Your task to perform on an android device: Clear all items from cart on costco. Image 0: 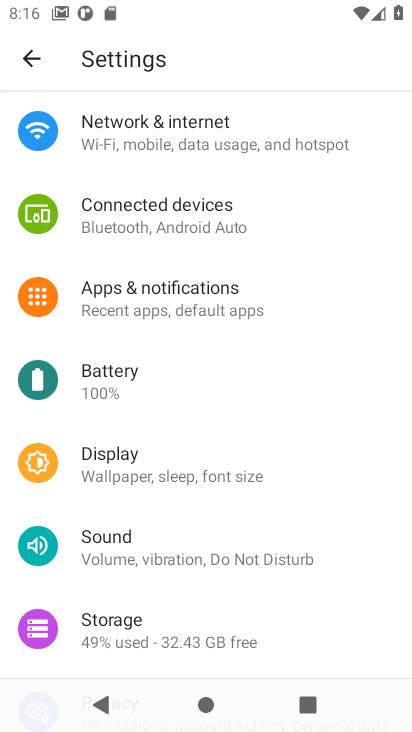
Step 0: press home button
Your task to perform on an android device: Clear all items from cart on costco. Image 1: 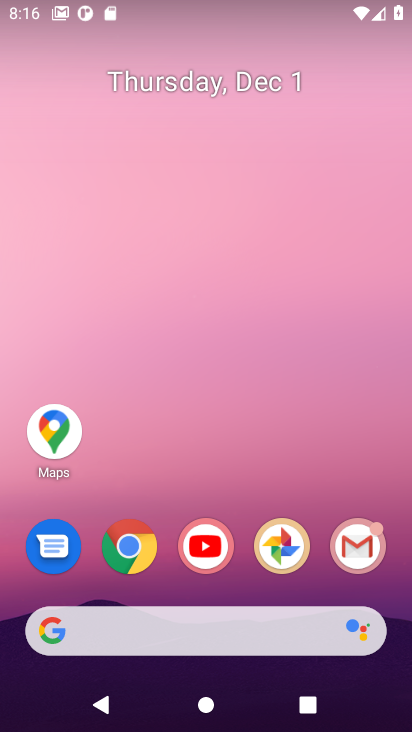
Step 1: click (130, 558)
Your task to perform on an android device: Clear all items from cart on costco. Image 2: 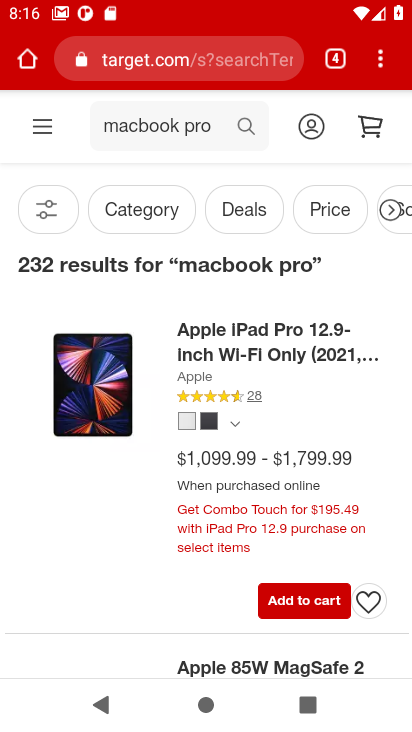
Step 2: click (180, 64)
Your task to perform on an android device: Clear all items from cart on costco. Image 3: 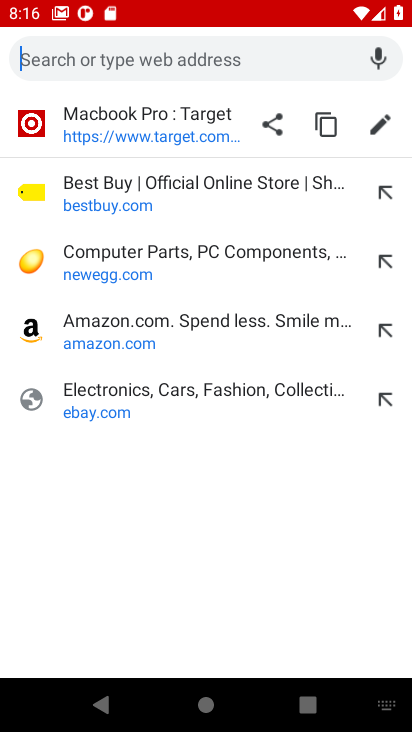
Step 3: type "costco.com"
Your task to perform on an android device: Clear all items from cart on costco. Image 4: 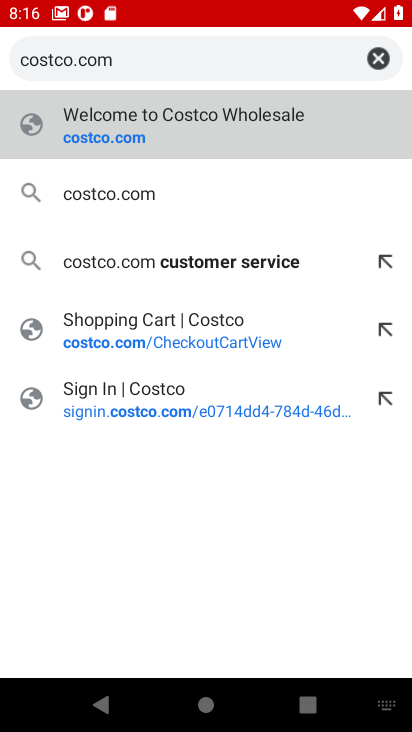
Step 4: click (100, 142)
Your task to perform on an android device: Clear all items from cart on costco. Image 5: 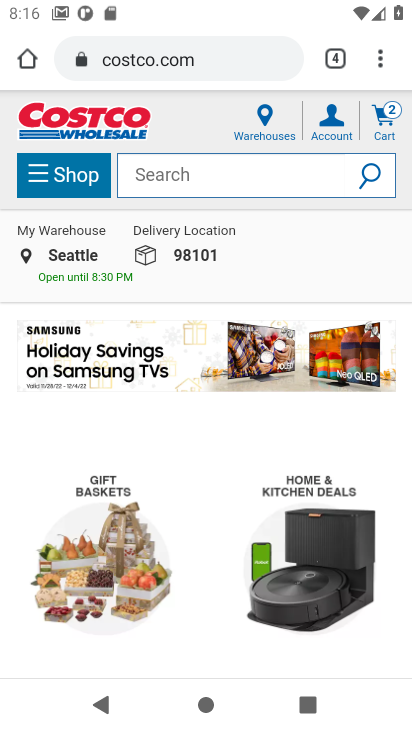
Step 5: click (384, 121)
Your task to perform on an android device: Clear all items from cart on costco. Image 6: 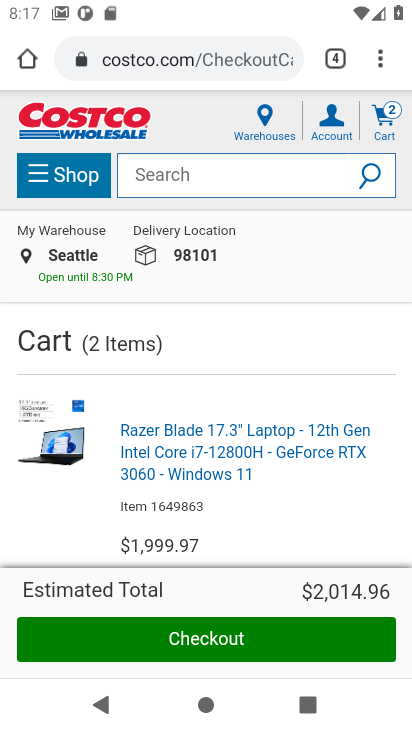
Step 6: drag from (237, 379) to (241, 229)
Your task to perform on an android device: Clear all items from cart on costco. Image 7: 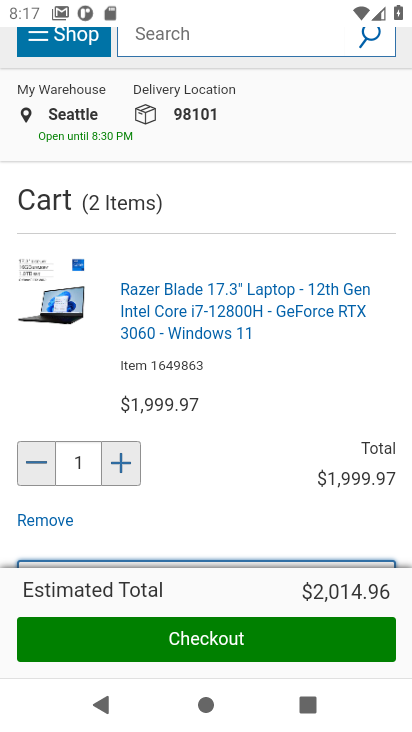
Step 7: drag from (210, 471) to (220, 196)
Your task to perform on an android device: Clear all items from cart on costco. Image 8: 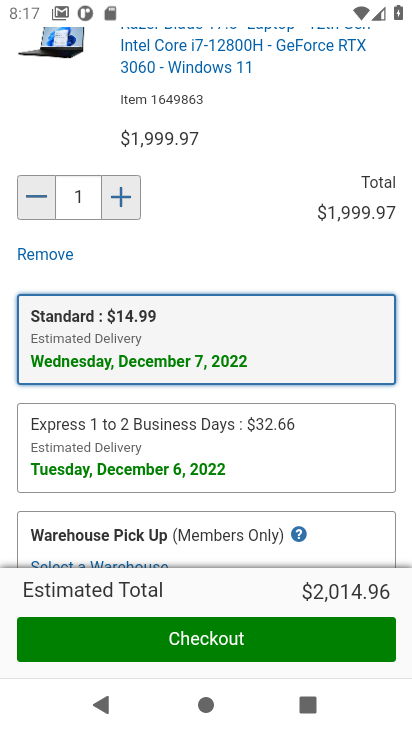
Step 8: drag from (212, 369) to (231, 211)
Your task to perform on an android device: Clear all items from cart on costco. Image 9: 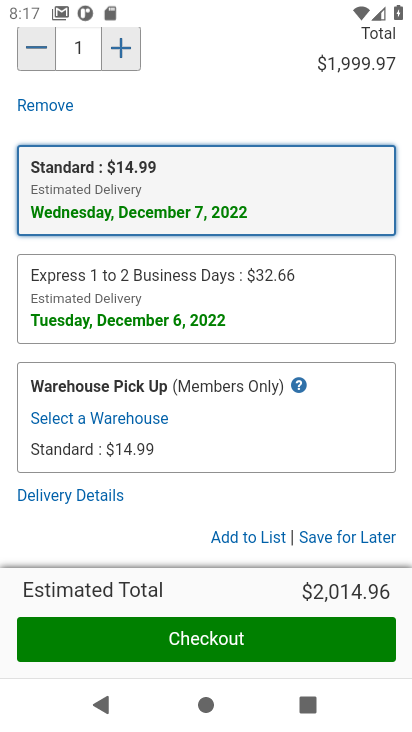
Step 9: click (317, 547)
Your task to perform on an android device: Clear all items from cart on costco. Image 10: 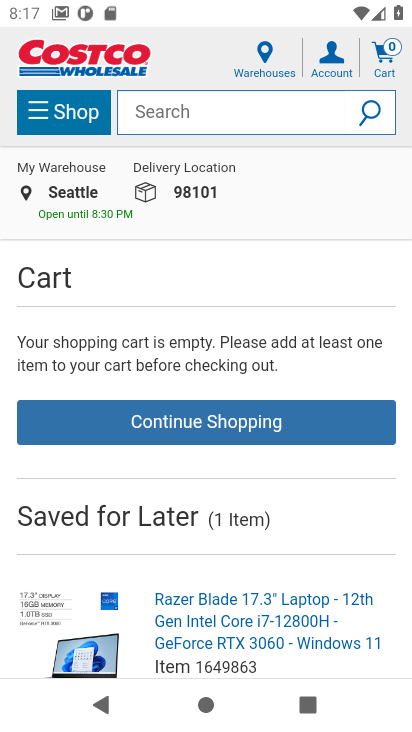
Step 10: task complete